Your task to perform on an android device: change the clock style Image 0: 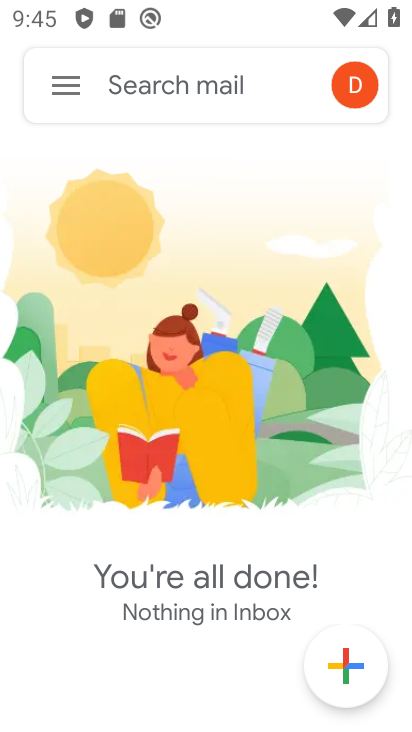
Step 0: press home button
Your task to perform on an android device: change the clock style Image 1: 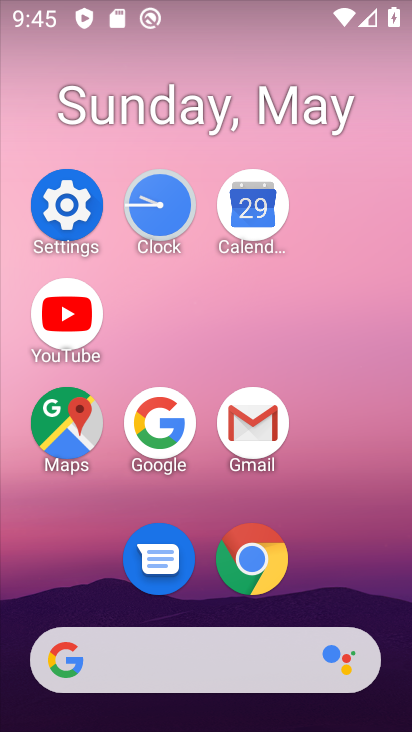
Step 1: click (169, 207)
Your task to perform on an android device: change the clock style Image 2: 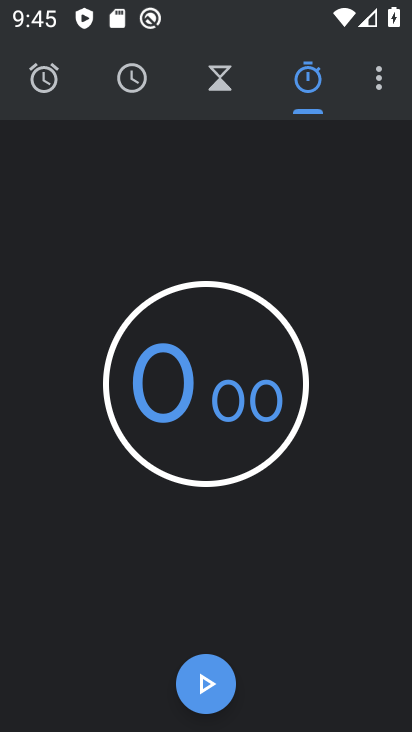
Step 2: click (385, 80)
Your task to perform on an android device: change the clock style Image 3: 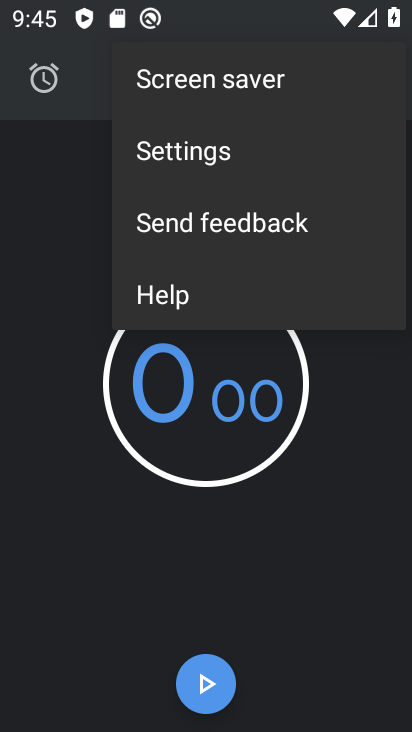
Step 3: click (278, 144)
Your task to perform on an android device: change the clock style Image 4: 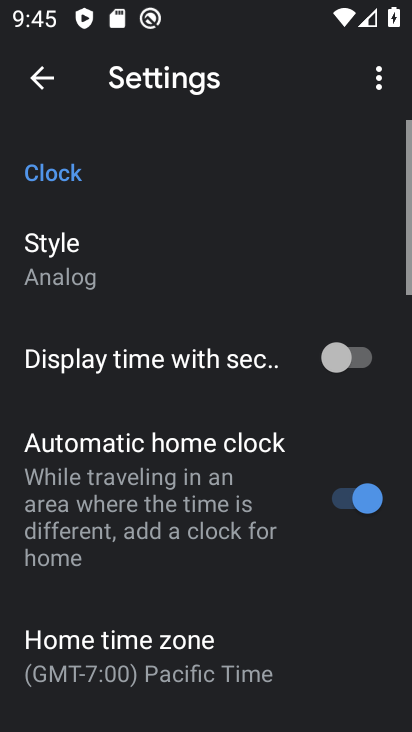
Step 4: click (98, 248)
Your task to perform on an android device: change the clock style Image 5: 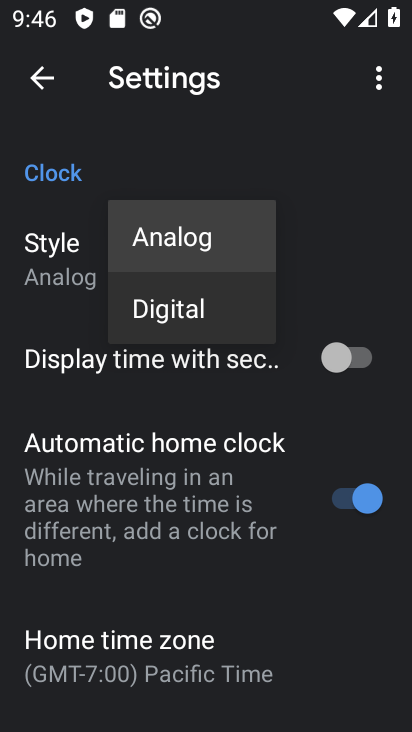
Step 5: click (167, 313)
Your task to perform on an android device: change the clock style Image 6: 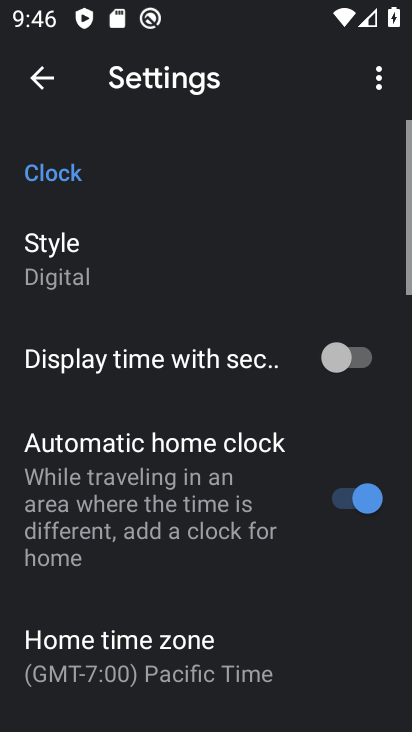
Step 6: task complete